Your task to perform on an android device: choose inbox layout in the gmail app Image 0: 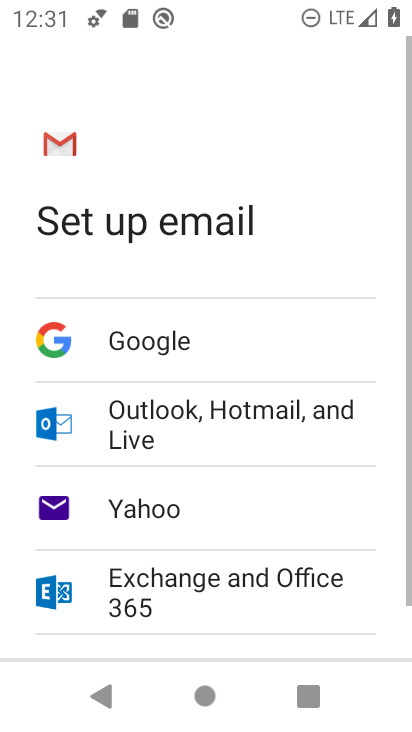
Step 0: press home button
Your task to perform on an android device: choose inbox layout in the gmail app Image 1: 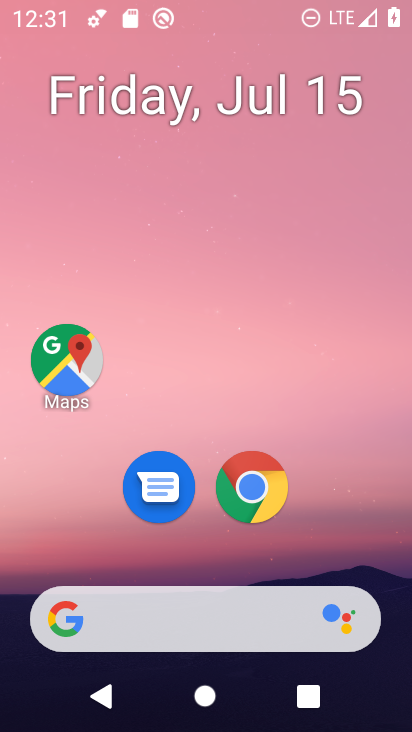
Step 1: drag from (200, 637) to (274, 175)
Your task to perform on an android device: choose inbox layout in the gmail app Image 2: 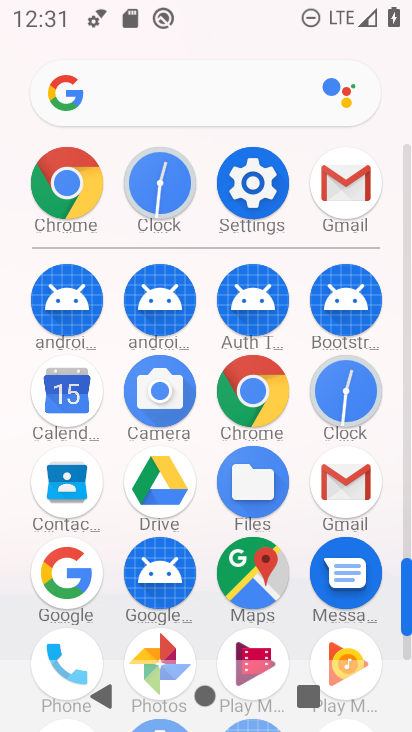
Step 2: drag from (205, 420) to (274, 139)
Your task to perform on an android device: choose inbox layout in the gmail app Image 3: 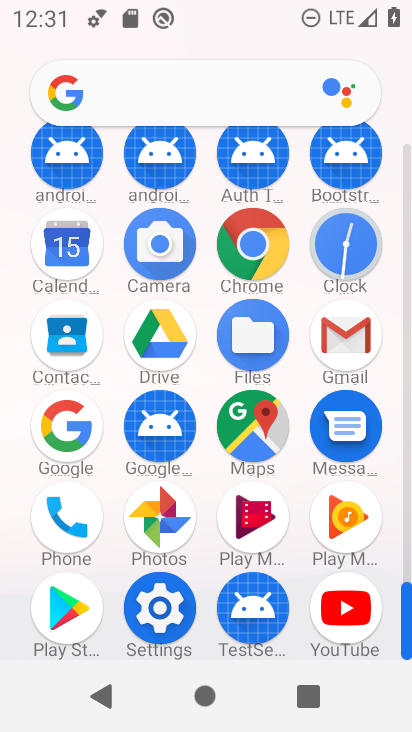
Step 3: click (336, 354)
Your task to perform on an android device: choose inbox layout in the gmail app Image 4: 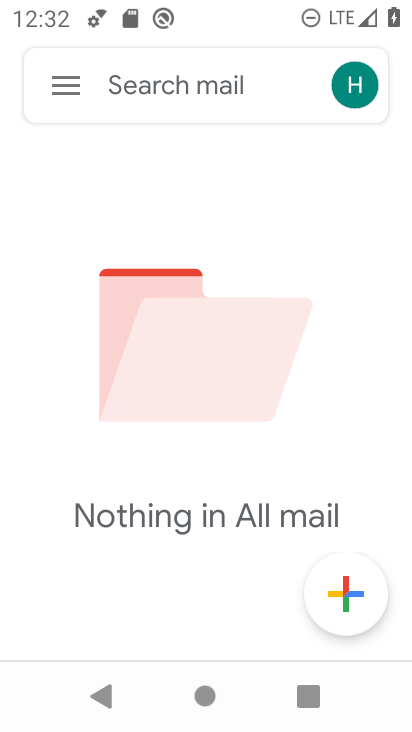
Step 4: click (62, 90)
Your task to perform on an android device: choose inbox layout in the gmail app Image 5: 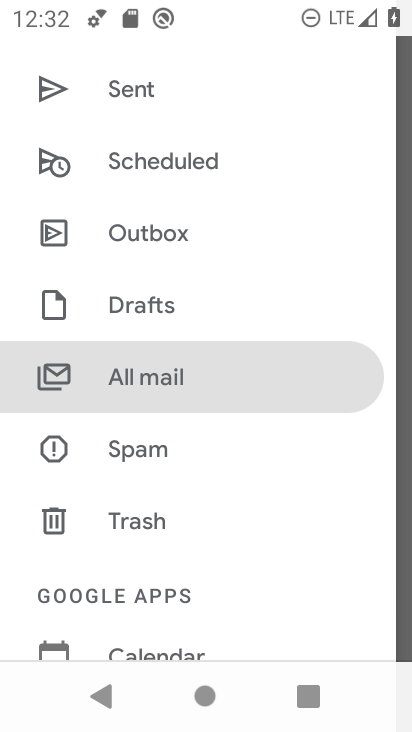
Step 5: task complete